Your task to perform on an android device: see creations saved in the google photos Image 0: 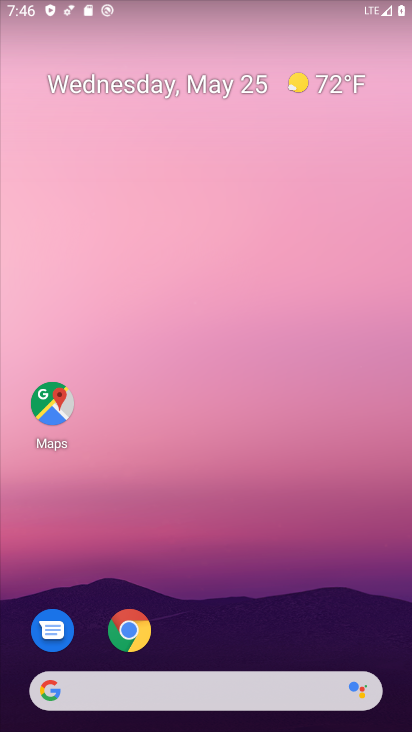
Step 0: drag from (216, 643) to (252, 149)
Your task to perform on an android device: see creations saved in the google photos Image 1: 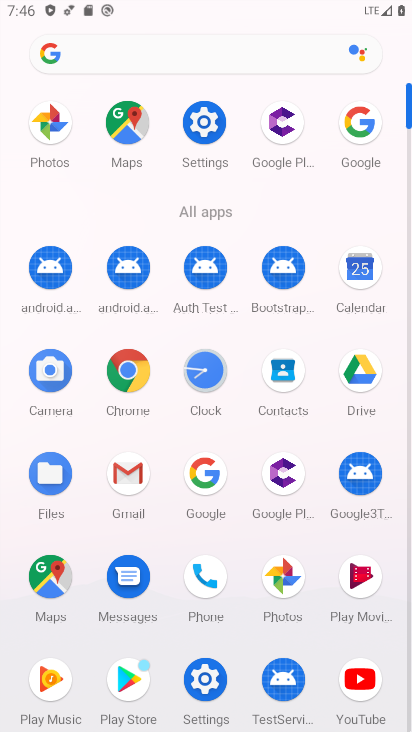
Step 1: click (65, 134)
Your task to perform on an android device: see creations saved in the google photos Image 2: 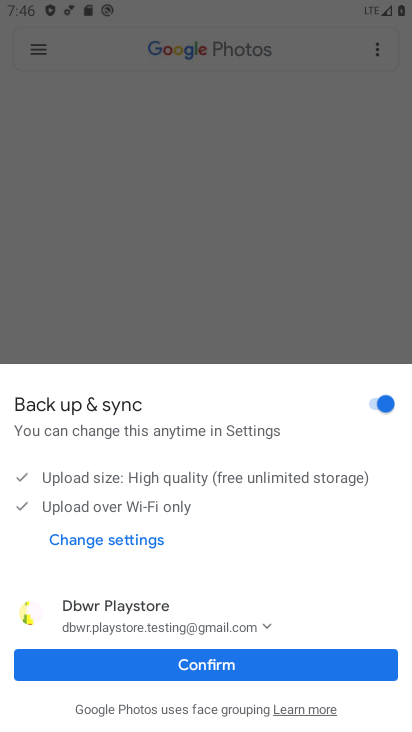
Step 2: click (226, 663)
Your task to perform on an android device: see creations saved in the google photos Image 3: 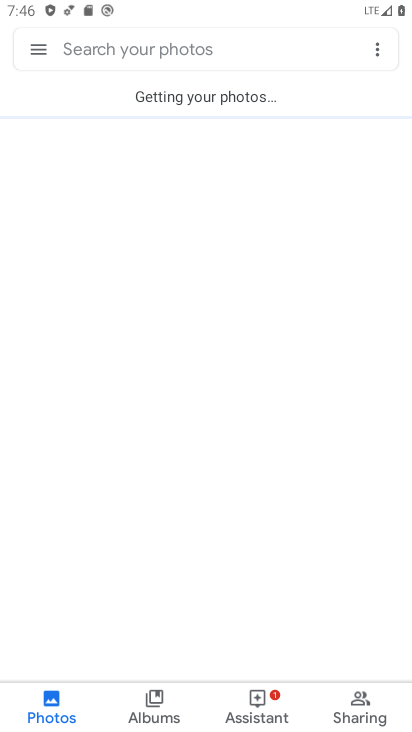
Step 3: click (183, 51)
Your task to perform on an android device: see creations saved in the google photos Image 4: 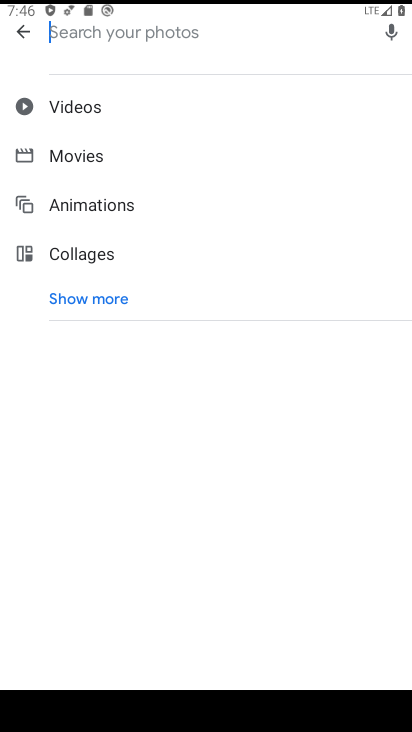
Step 4: click (97, 293)
Your task to perform on an android device: see creations saved in the google photos Image 5: 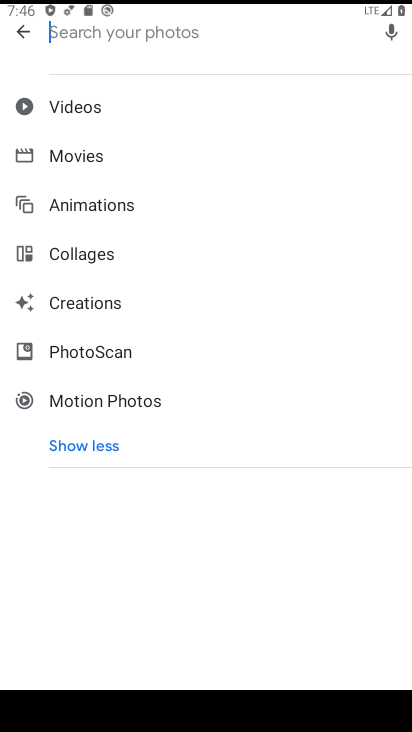
Step 5: click (91, 282)
Your task to perform on an android device: see creations saved in the google photos Image 6: 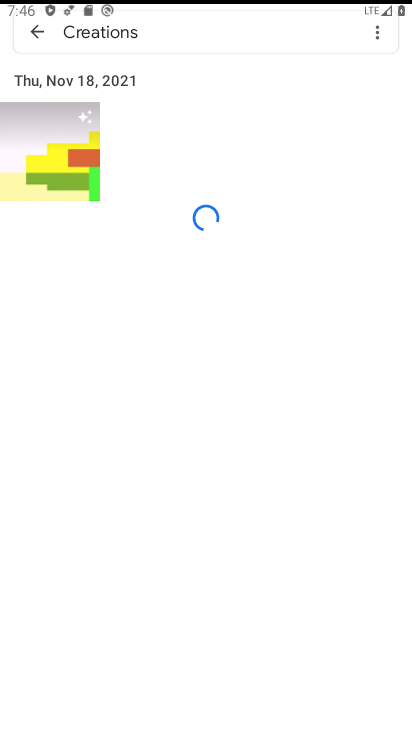
Step 6: task complete